Your task to perform on an android device: toggle notifications settings in the gmail app Image 0: 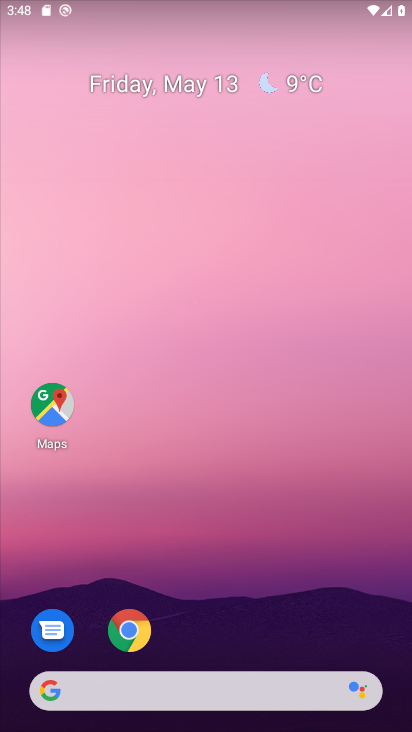
Step 0: drag from (238, 519) to (210, 42)
Your task to perform on an android device: toggle notifications settings in the gmail app Image 1: 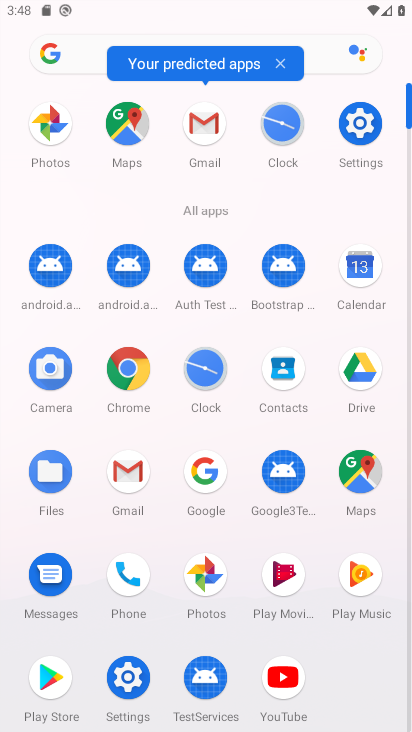
Step 1: drag from (16, 566) to (8, 265)
Your task to perform on an android device: toggle notifications settings in the gmail app Image 2: 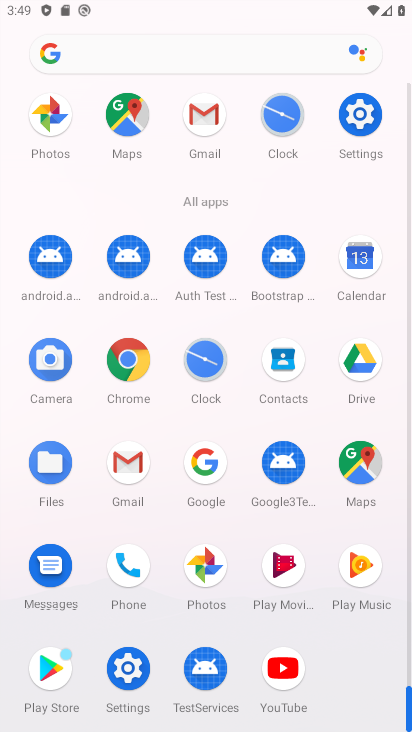
Step 2: click (125, 456)
Your task to perform on an android device: toggle notifications settings in the gmail app Image 3: 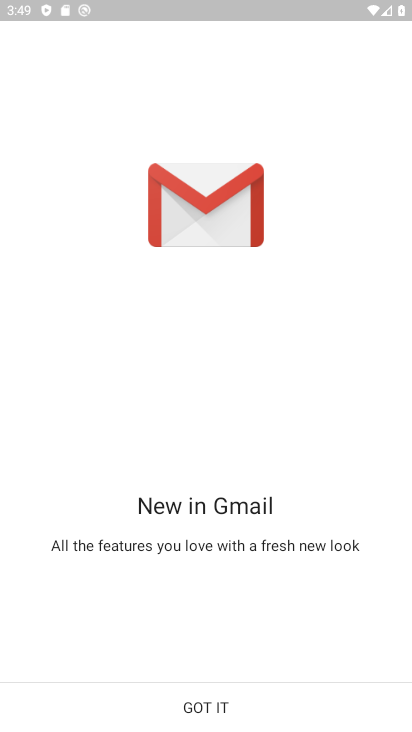
Step 3: click (239, 702)
Your task to perform on an android device: toggle notifications settings in the gmail app Image 4: 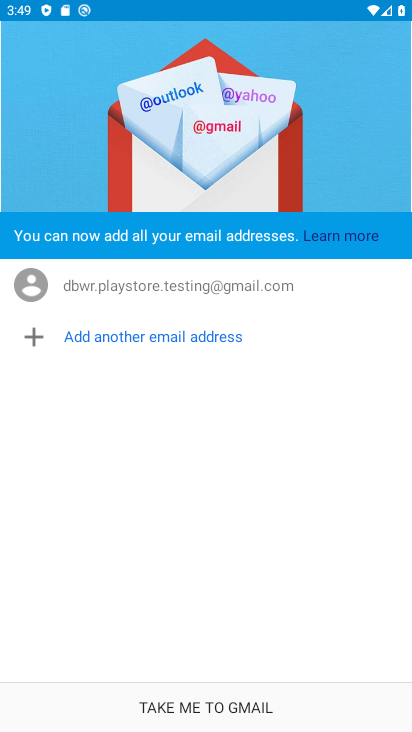
Step 4: click (219, 705)
Your task to perform on an android device: toggle notifications settings in the gmail app Image 5: 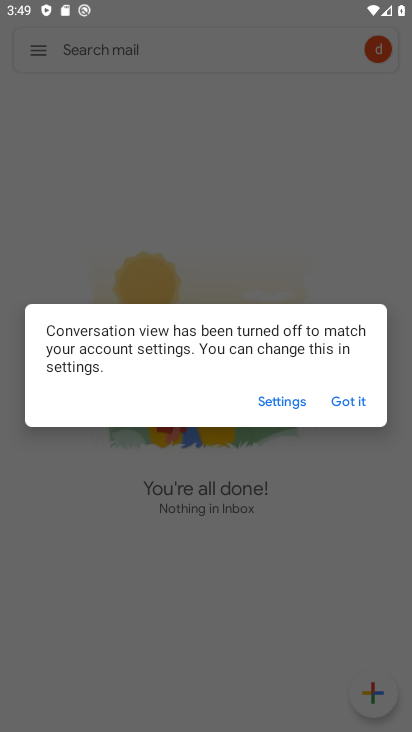
Step 5: click (346, 401)
Your task to perform on an android device: toggle notifications settings in the gmail app Image 6: 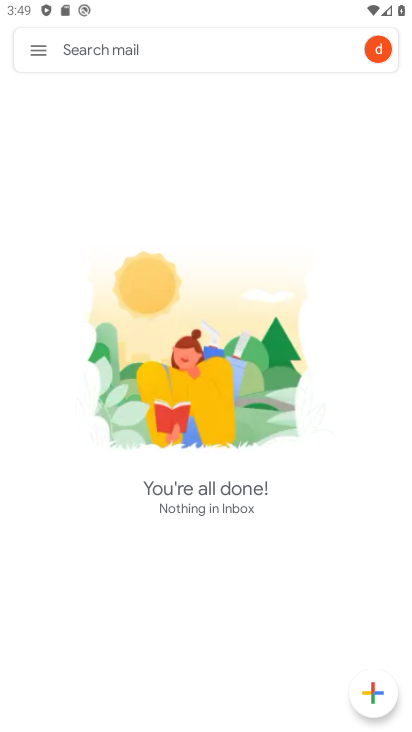
Step 6: click (41, 48)
Your task to perform on an android device: toggle notifications settings in the gmail app Image 7: 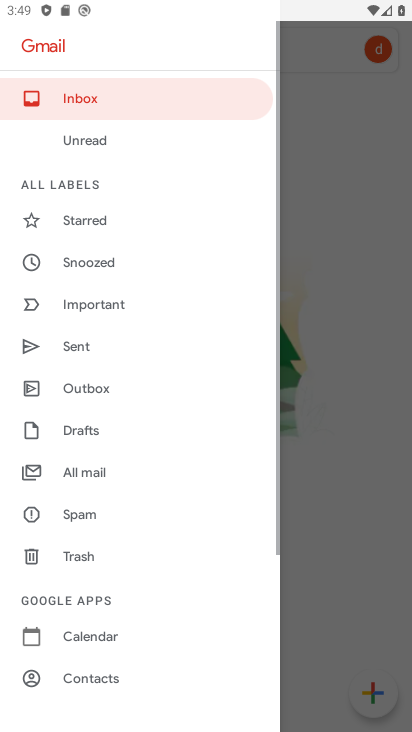
Step 7: drag from (132, 562) to (170, 214)
Your task to perform on an android device: toggle notifications settings in the gmail app Image 8: 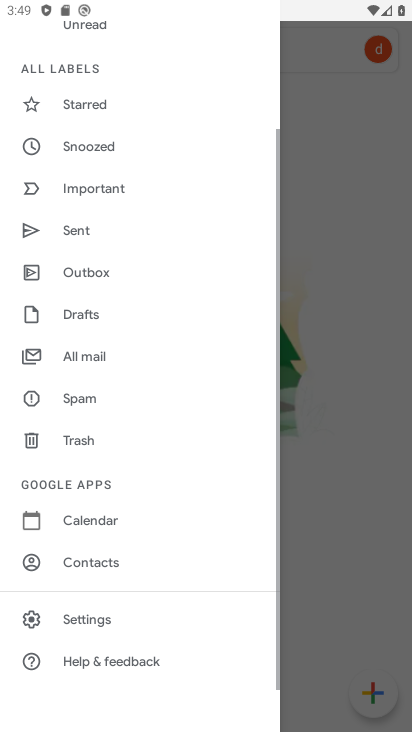
Step 8: click (82, 613)
Your task to perform on an android device: toggle notifications settings in the gmail app Image 9: 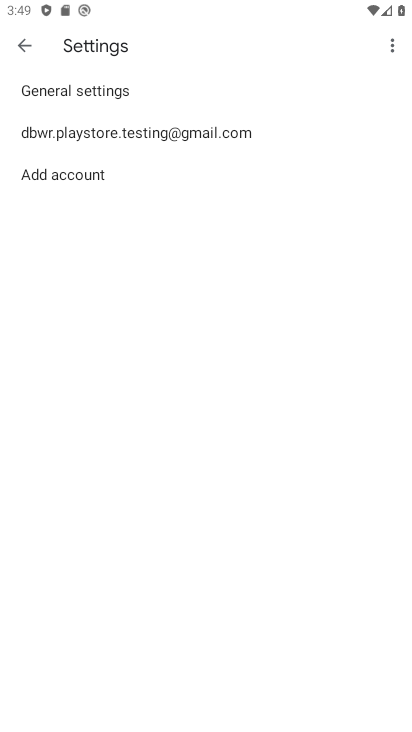
Step 9: click (156, 139)
Your task to perform on an android device: toggle notifications settings in the gmail app Image 10: 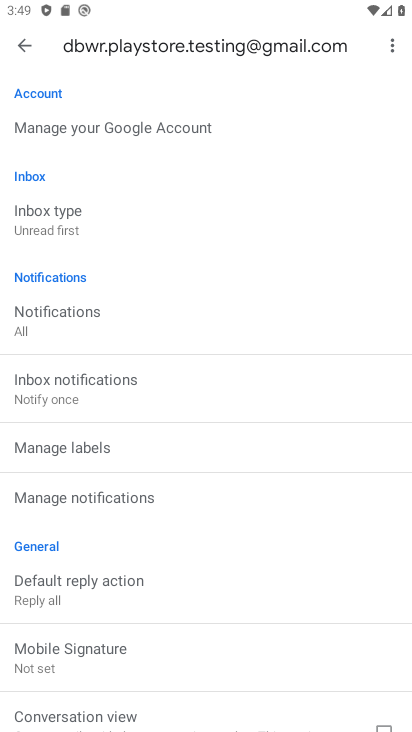
Step 10: click (124, 491)
Your task to perform on an android device: toggle notifications settings in the gmail app Image 11: 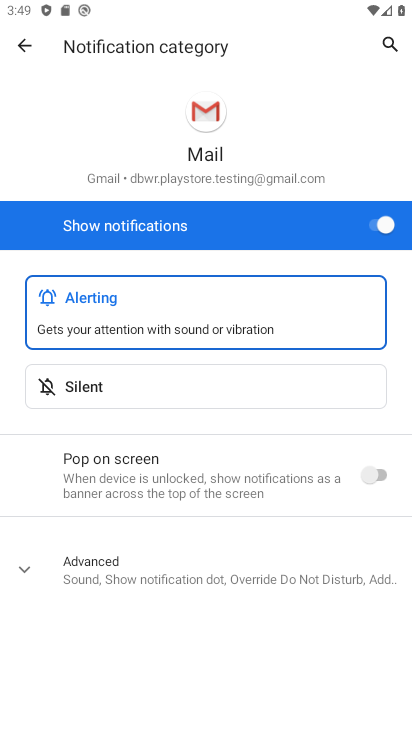
Step 11: click (377, 233)
Your task to perform on an android device: toggle notifications settings in the gmail app Image 12: 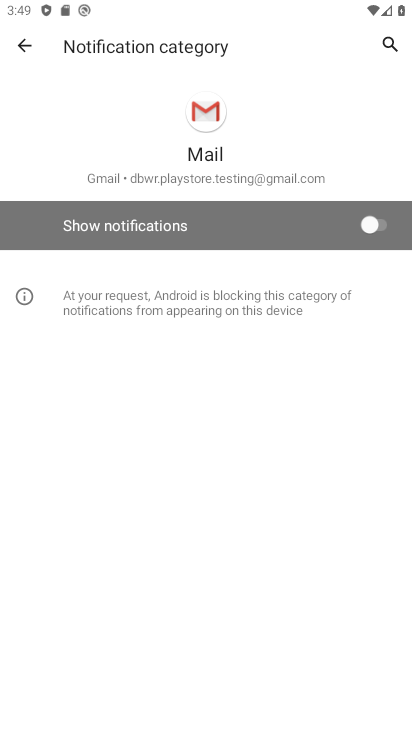
Step 12: task complete